Your task to perform on an android device: open chrome privacy settings Image 0: 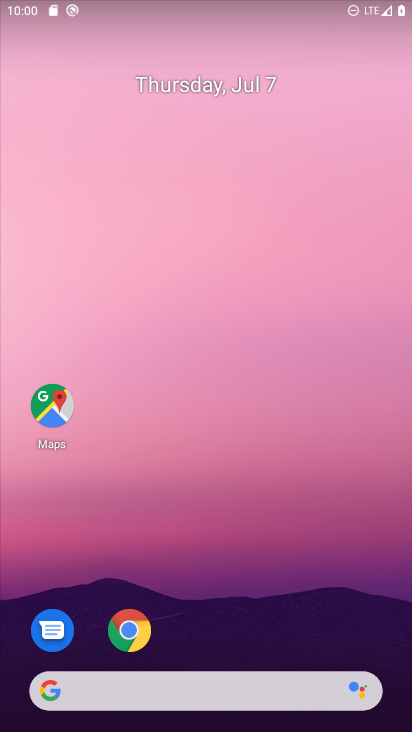
Step 0: click (143, 631)
Your task to perform on an android device: open chrome privacy settings Image 1: 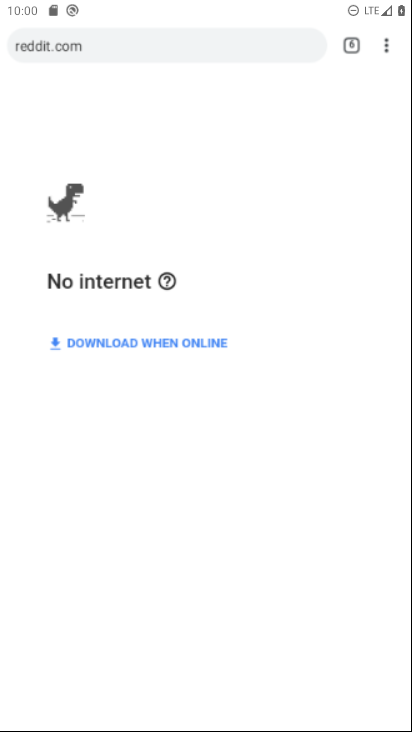
Step 1: click (389, 50)
Your task to perform on an android device: open chrome privacy settings Image 2: 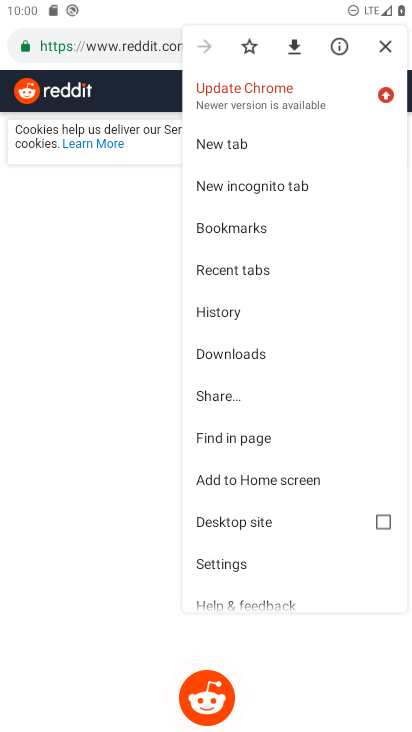
Step 2: click (270, 568)
Your task to perform on an android device: open chrome privacy settings Image 3: 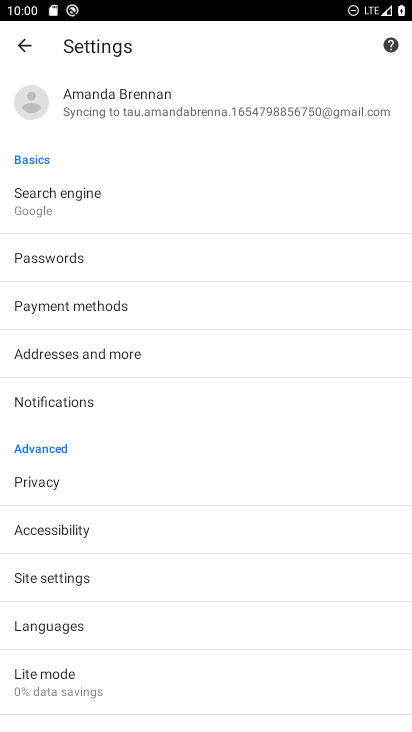
Step 3: click (72, 485)
Your task to perform on an android device: open chrome privacy settings Image 4: 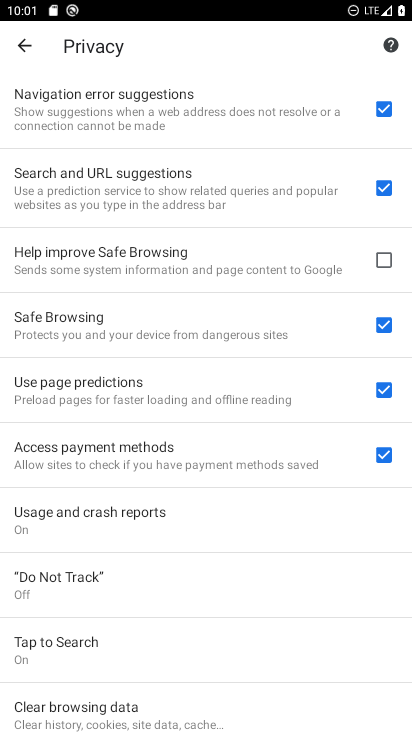
Step 4: task complete